Your task to perform on an android device: turn on airplane mode Image 0: 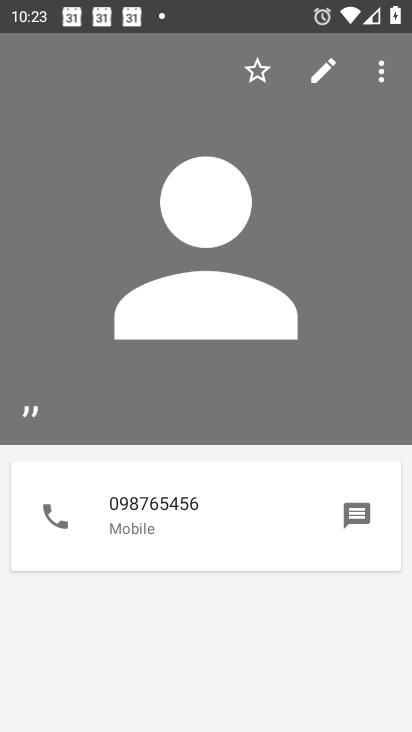
Step 0: press home button
Your task to perform on an android device: turn on airplane mode Image 1: 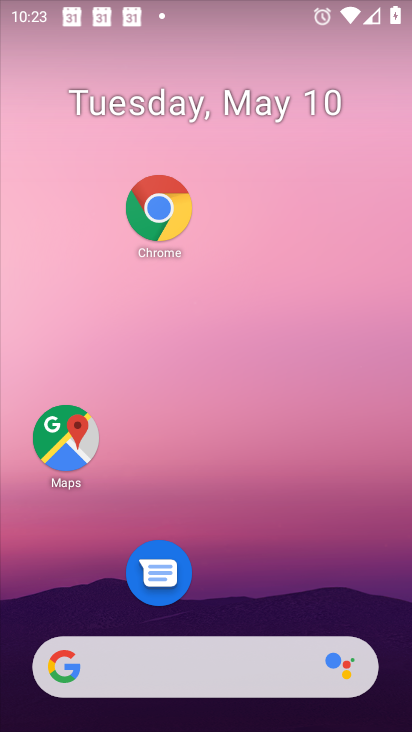
Step 1: drag from (271, 718) to (384, 184)
Your task to perform on an android device: turn on airplane mode Image 2: 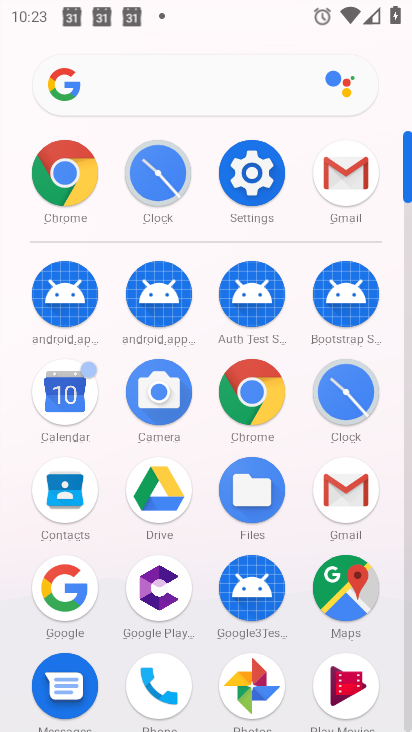
Step 2: click (259, 173)
Your task to perform on an android device: turn on airplane mode Image 3: 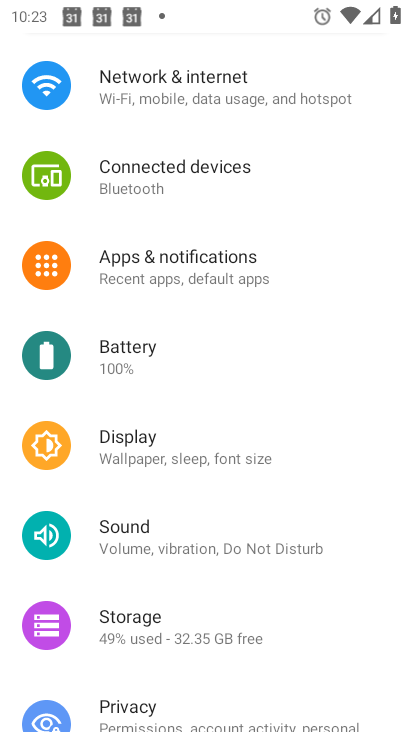
Step 3: click (161, 96)
Your task to perform on an android device: turn on airplane mode Image 4: 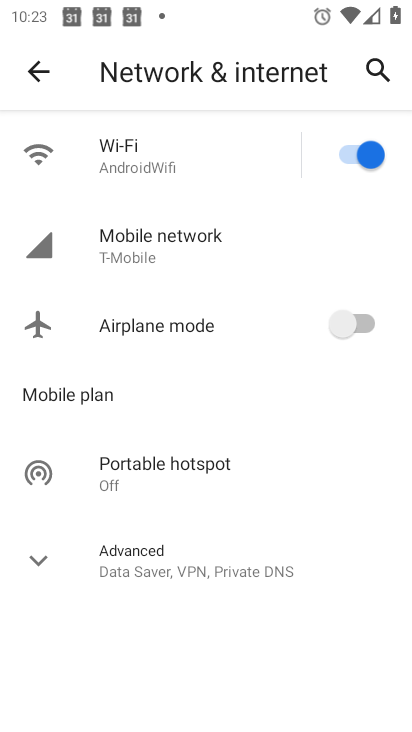
Step 4: click (325, 313)
Your task to perform on an android device: turn on airplane mode Image 5: 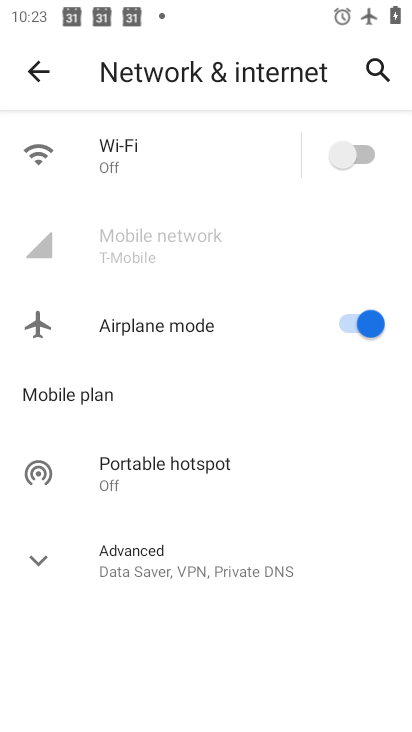
Step 5: task complete